Your task to perform on an android device: change text size in settings app Image 0: 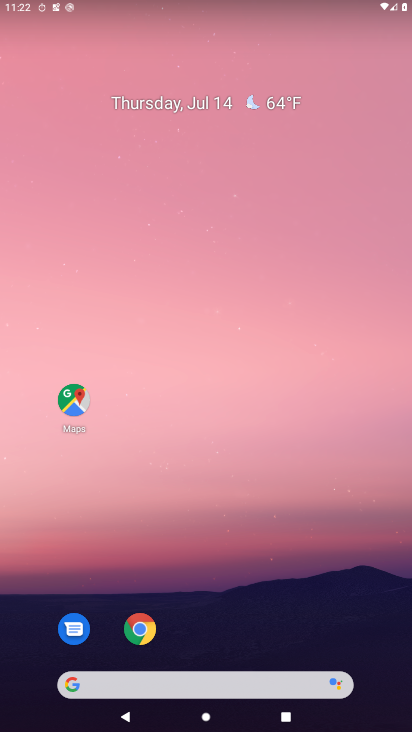
Step 0: drag from (185, 606) to (225, 103)
Your task to perform on an android device: change text size in settings app Image 1: 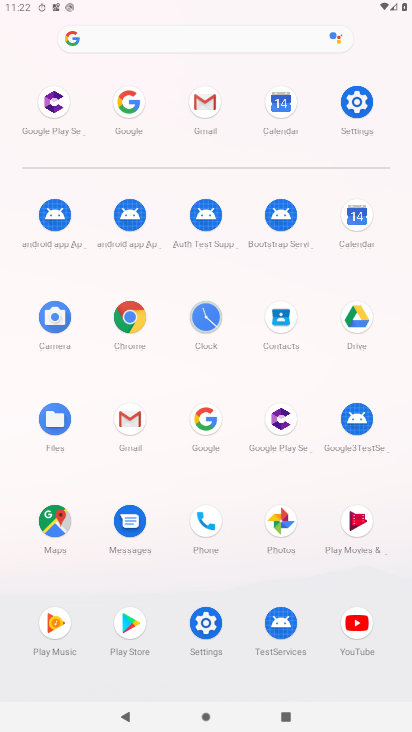
Step 1: click (358, 96)
Your task to perform on an android device: change text size in settings app Image 2: 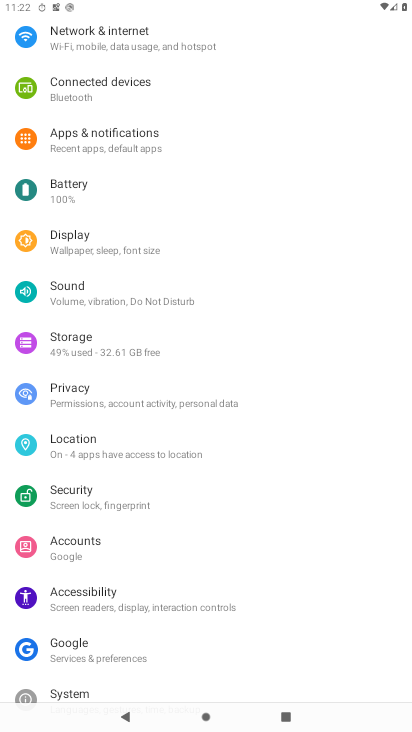
Step 2: click (77, 596)
Your task to perform on an android device: change text size in settings app Image 3: 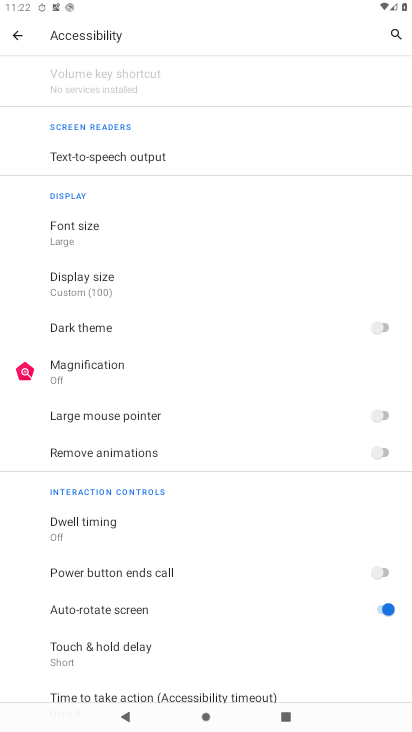
Step 3: click (98, 235)
Your task to perform on an android device: change text size in settings app Image 4: 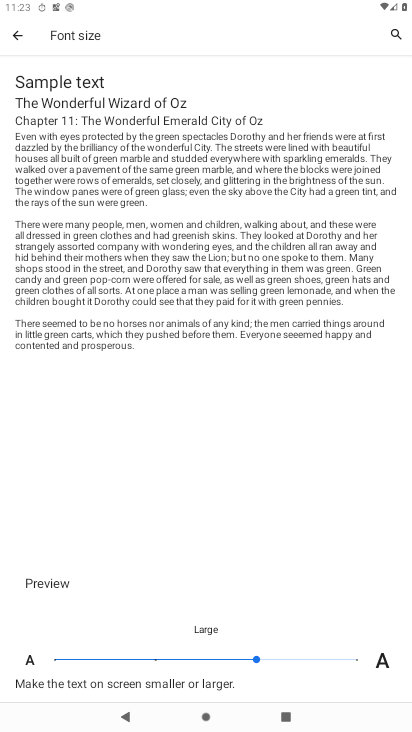
Step 4: click (208, 655)
Your task to perform on an android device: change text size in settings app Image 5: 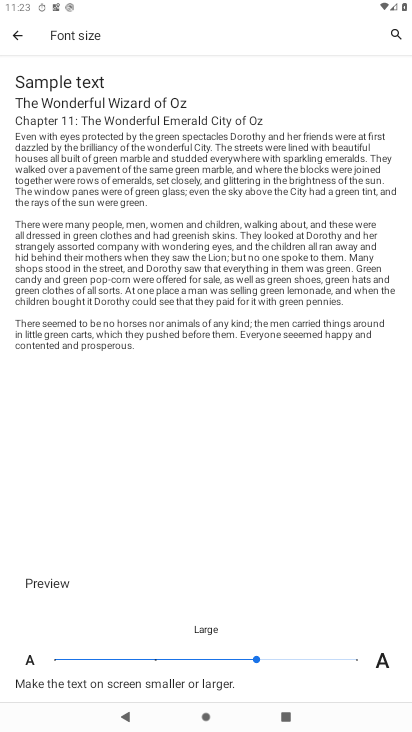
Step 5: click (256, 659)
Your task to perform on an android device: change text size in settings app Image 6: 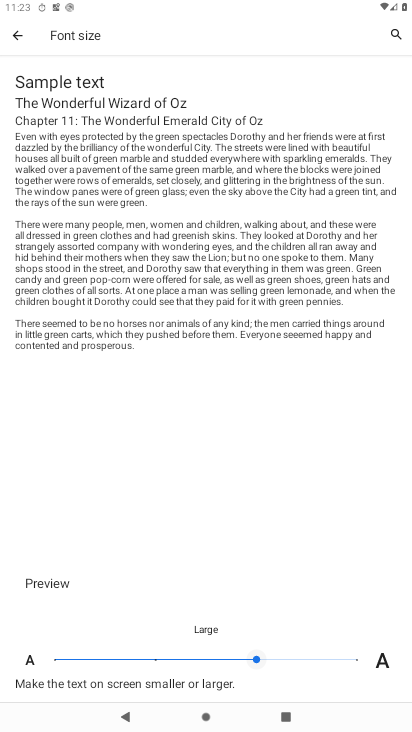
Step 6: click (224, 655)
Your task to perform on an android device: change text size in settings app Image 7: 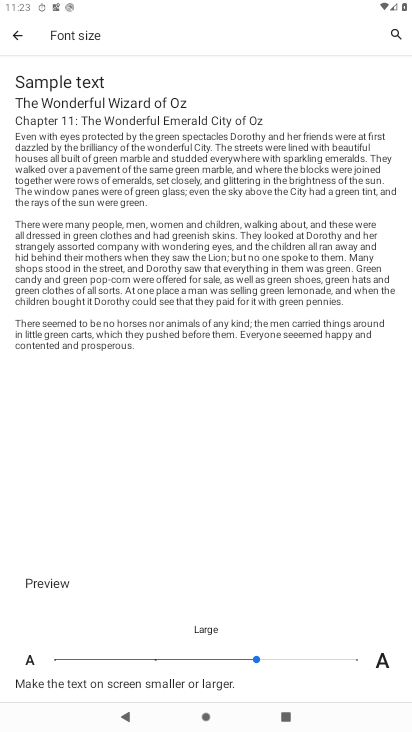
Step 7: task complete